Your task to perform on an android device: open chrome privacy settings Image 0: 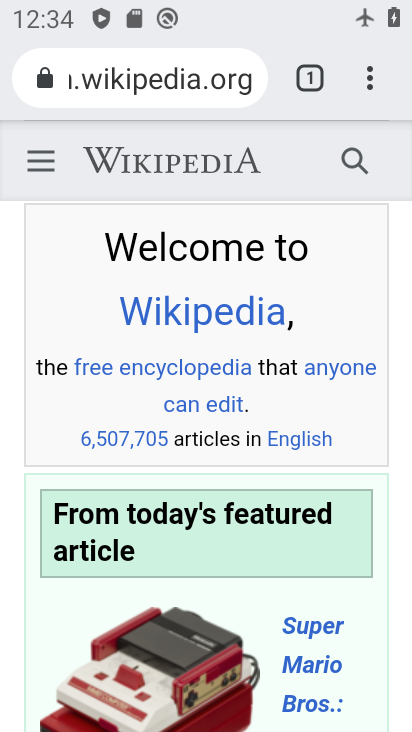
Step 0: press home button
Your task to perform on an android device: open chrome privacy settings Image 1: 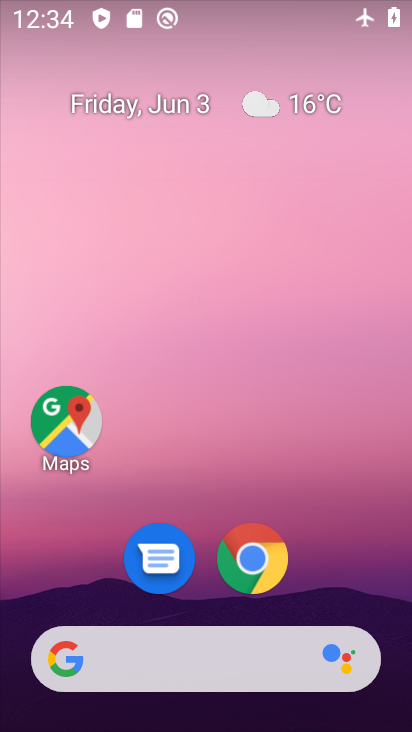
Step 1: drag from (369, 480) to (348, 190)
Your task to perform on an android device: open chrome privacy settings Image 2: 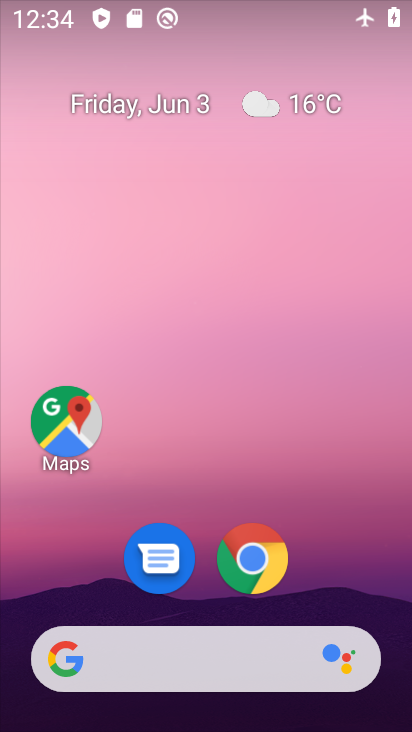
Step 2: drag from (373, 434) to (397, 178)
Your task to perform on an android device: open chrome privacy settings Image 3: 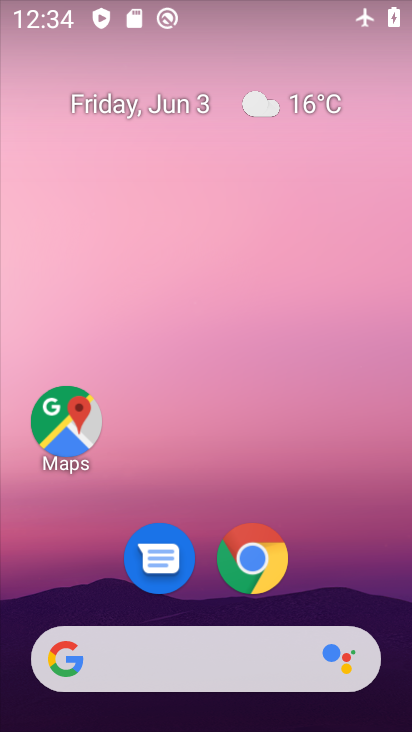
Step 3: drag from (354, 577) to (320, 176)
Your task to perform on an android device: open chrome privacy settings Image 4: 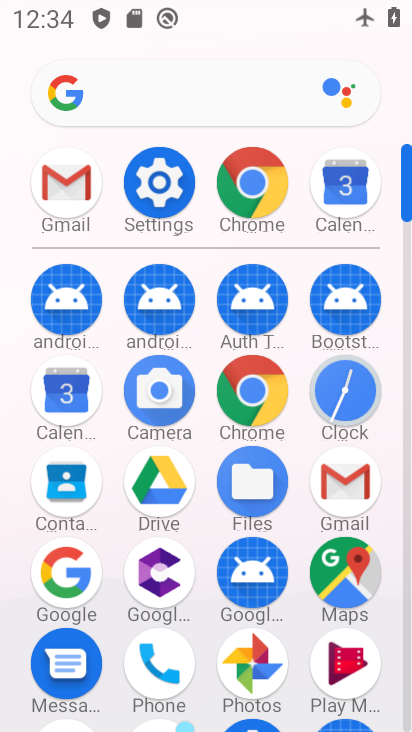
Step 4: click (275, 389)
Your task to perform on an android device: open chrome privacy settings Image 5: 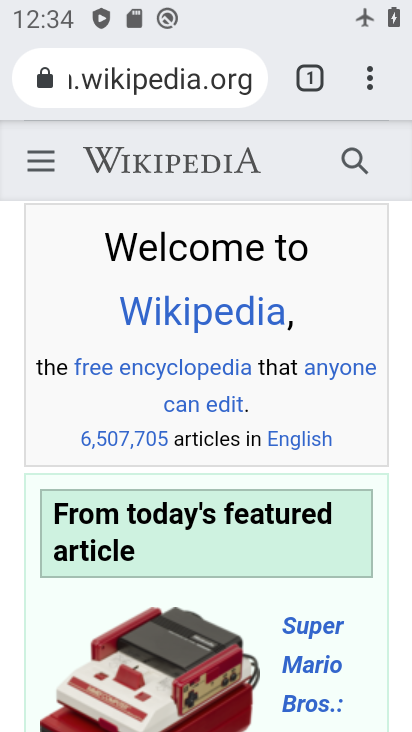
Step 5: click (370, 92)
Your task to perform on an android device: open chrome privacy settings Image 6: 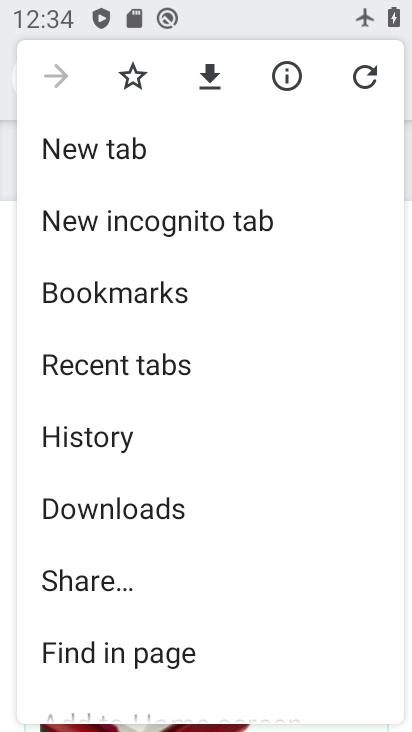
Step 6: drag from (288, 505) to (310, 430)
Your task to perform on an android device: open chrome privacy settings Image 7: 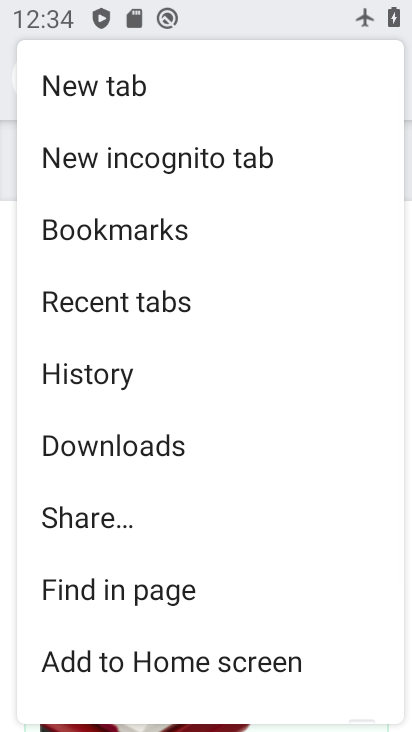
Step 7: drag from (300, 541) to (288, 482)
Your task to perform on an android device: open chrome privacy settings Image 8: 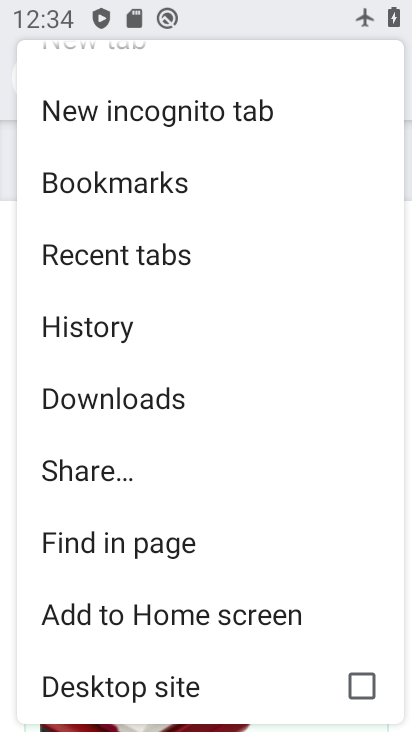
Step 8: drag from (294, 539) to (298, 439)
Your task to perform on an android device: open chrome privacy settings Image 9: 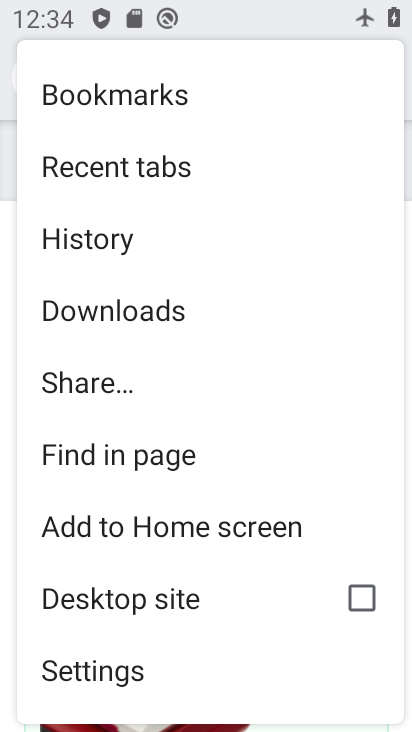
Step 9: drag from (291, 578) to (290, 488)
Your task to perform on an android device: open chrome privacy settings Image 10: 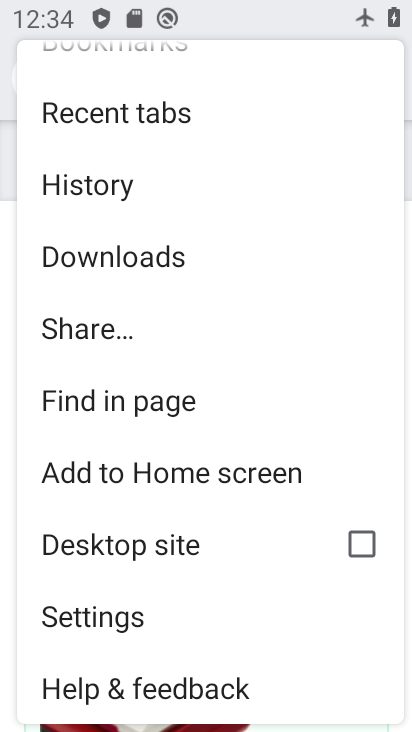
Step 10: click (135, 614)
Your task to perform on an android device: open chrome privacy settings Image 11: 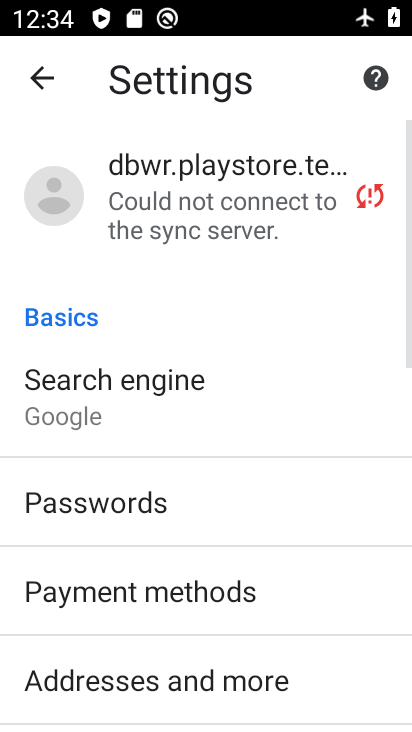
Step 11: drag from (301, 588) to (309, 525)
Your task to perform on an android device: open chrome privacy settings Image 12: 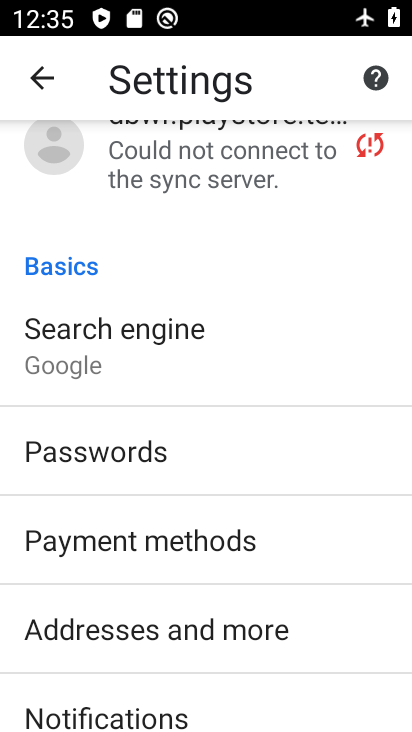
Step 12: drag from (296, 581) to (304, 531)
Your task to perform on an android device: open chrome privacy settings Image 13: 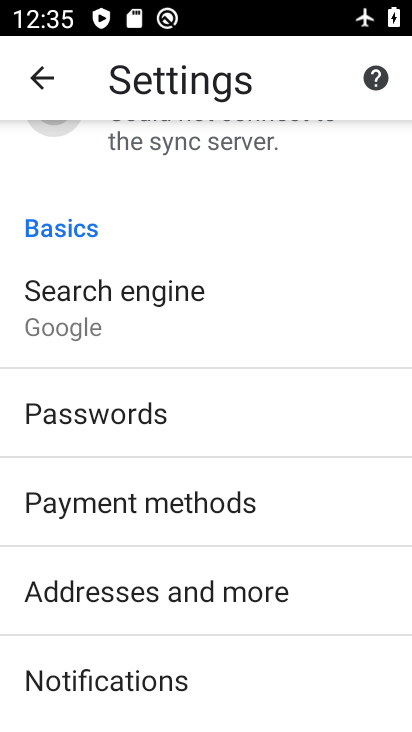
Step 13: drag from (320, 602) to (330, 505)
Your task to perform on an android device: open chrome privacy settings Image 14: 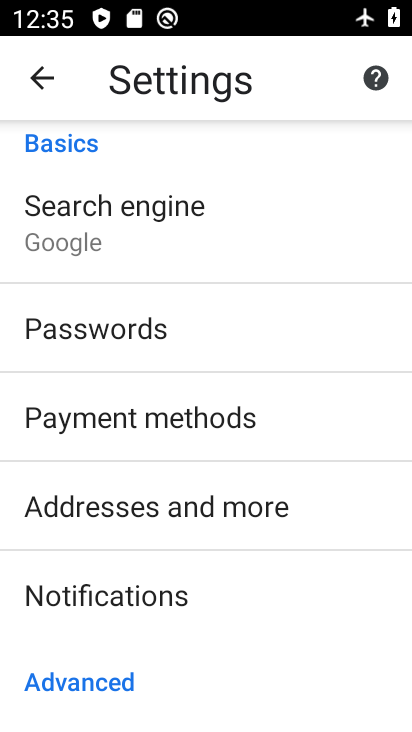
Step 14: drag from (311, 612) to (319, 527)
Your task to perform on an android device: open chrome privacy settings Image 15: 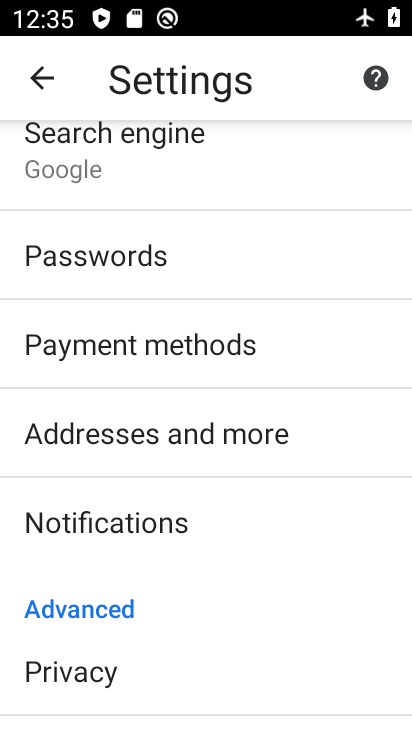
Step 15: drag from (289, 572) to (303, 480)
Your task to perform on an android device: open chrome privacy settings Image 16: 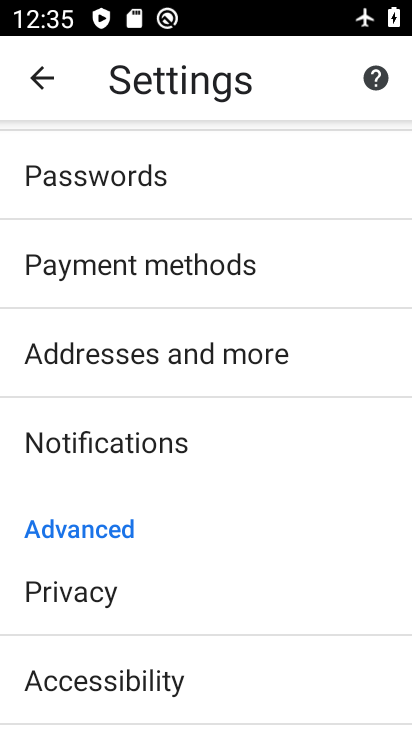
Step 16: drag from (298, 624) to (309, 501)
Your task to perform on an android device: open chrome privacy settings Image 17: 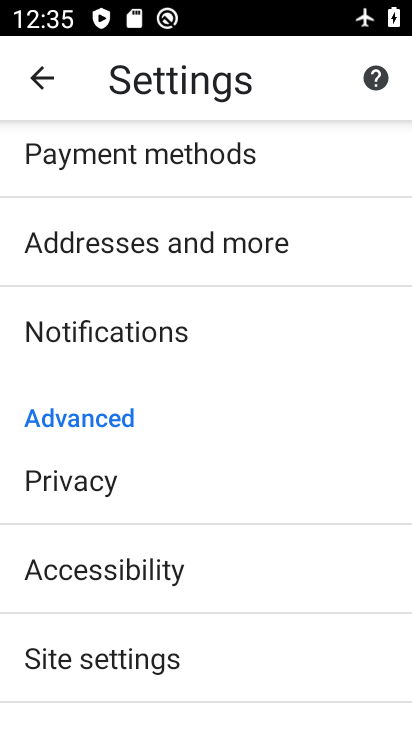
Step 17: click (189, 501)
Your task to perform on an android device: open chrome privacy settings Image 18: 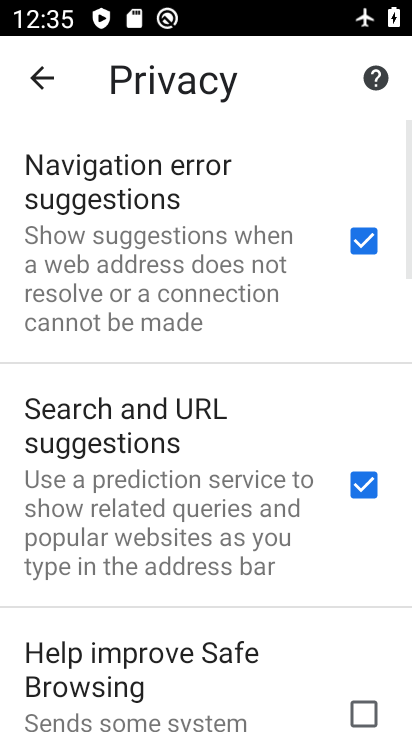
Step 18: drag from (285, 581) to (292, 469)
Your task to perform on an android device: open chrome privacy settings Image 19: 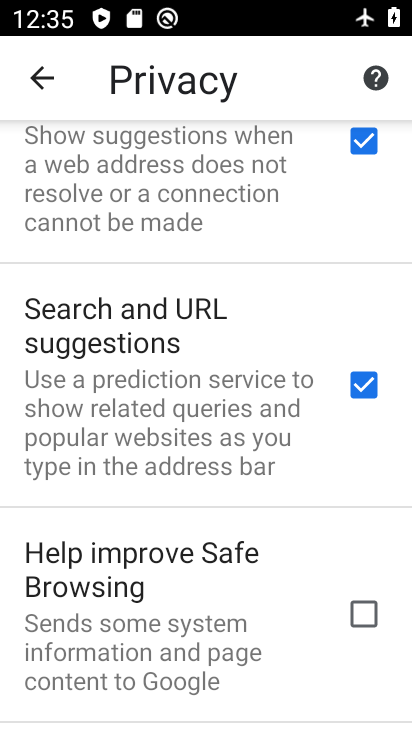
Step 19: drag from (285, 595) to (294, 497)
Your task to perform on an android device: open chrome privacy settings Image 20: 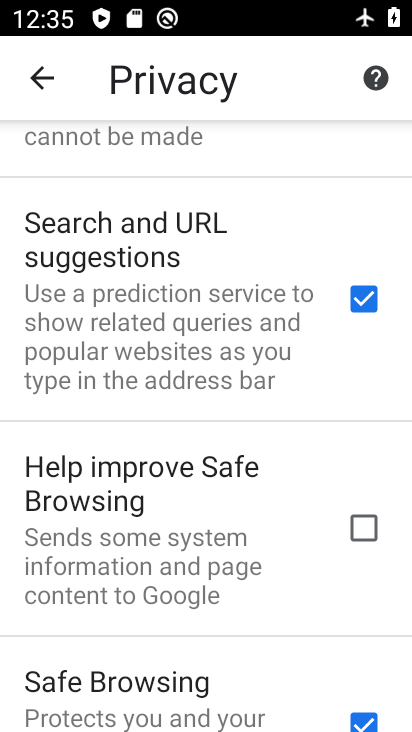
Step 20: click (306, 584)
Your task to perform on an android device: open chrome privacy settings Image 21: 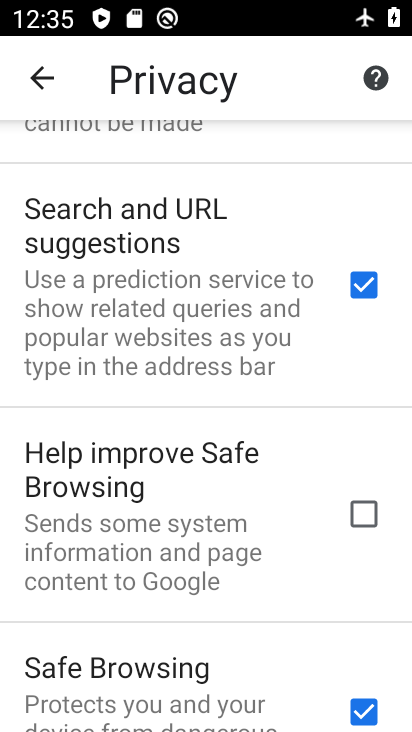
Step 21: task complete